Your task to perform on an android device: turn on wifi Image 0: 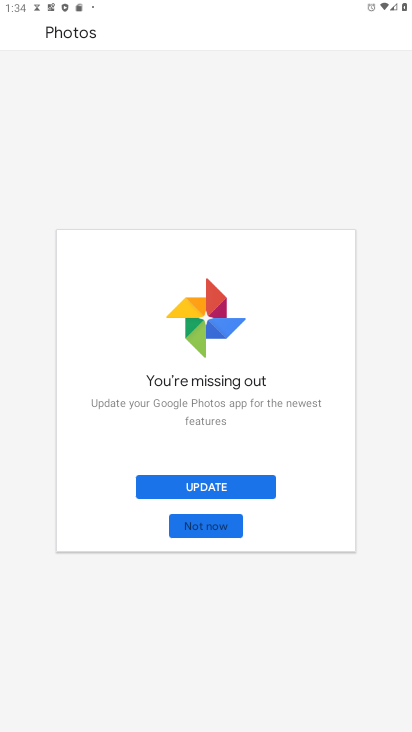
Step 0: press home button
Your task to perform on an android device: turn on wifi Image 1: 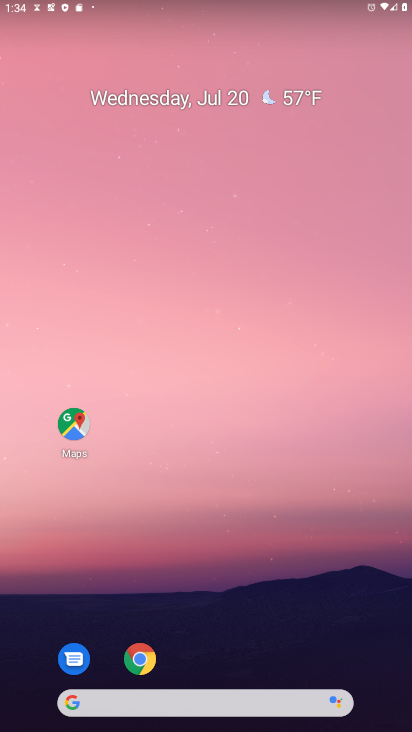
Step 1: task complete